Your task to perform on an android device: turn notification dots on Image 0: 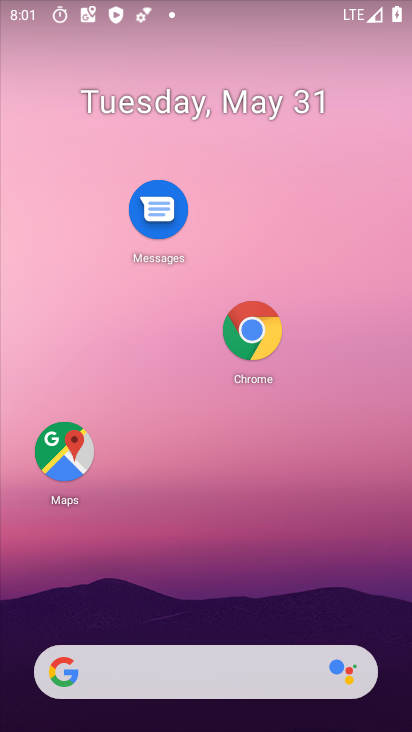
Step 0: drag from (216, 577) to (180, 10)
Your task to perform on an android device: turn notification dots on Image 1: 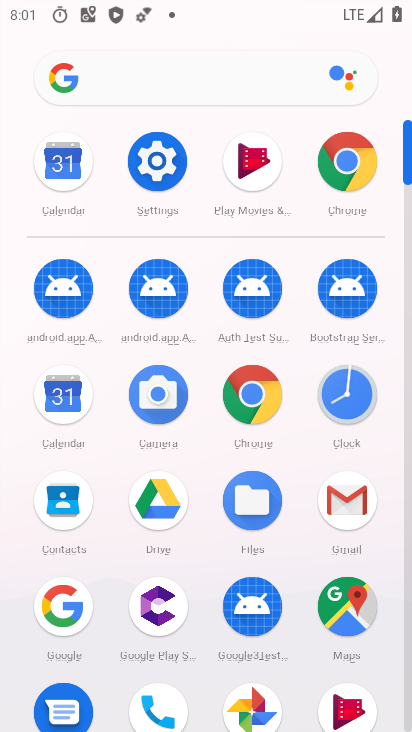
Step 1: click (157, 165)
Your task to perform on an android device: turn notification dots on Image 2: 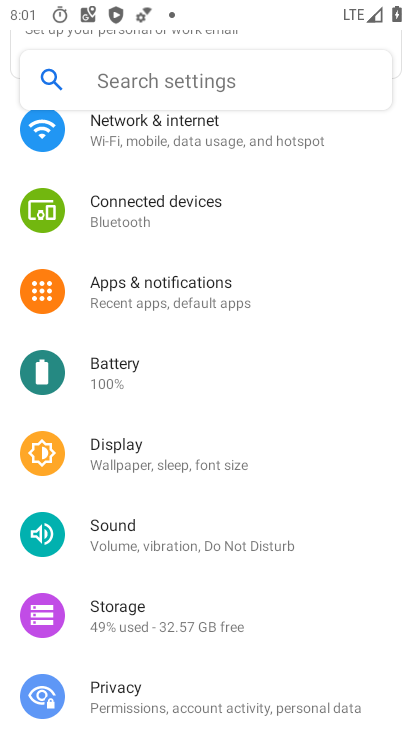
Step 2: click (186, 293)
Your task to perform on an android device: turn notification dots on Image 3: 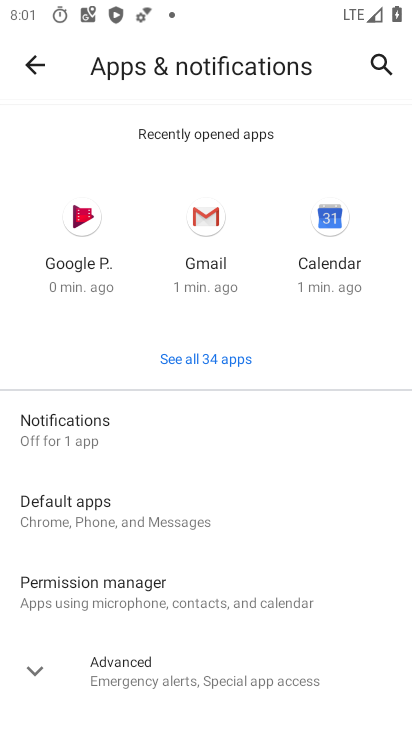
Step 3: click (73, 434)
Your task to perform on an android device: turn notification dots on Image 4: 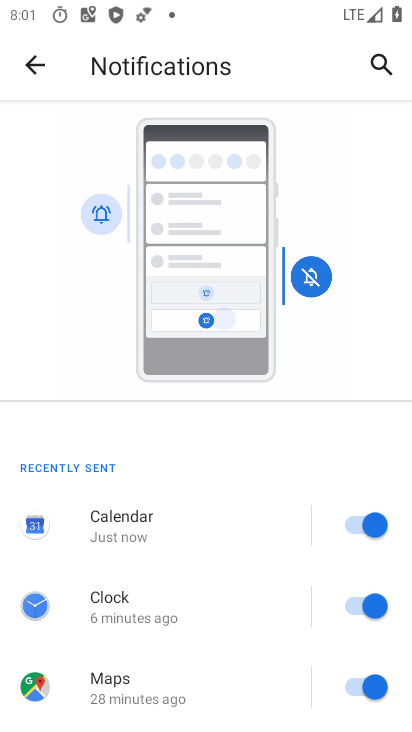
Step 4: drag from (173, 657) to (136, 270)
Your task to perform on an android device: turn notification dots on Image 5: 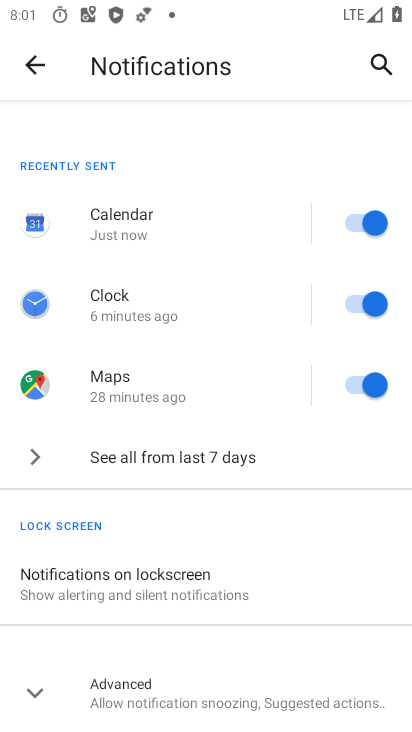
Step 5: click (151, 691)
Your task to perform on an android device: turn notification dots on Image 6: 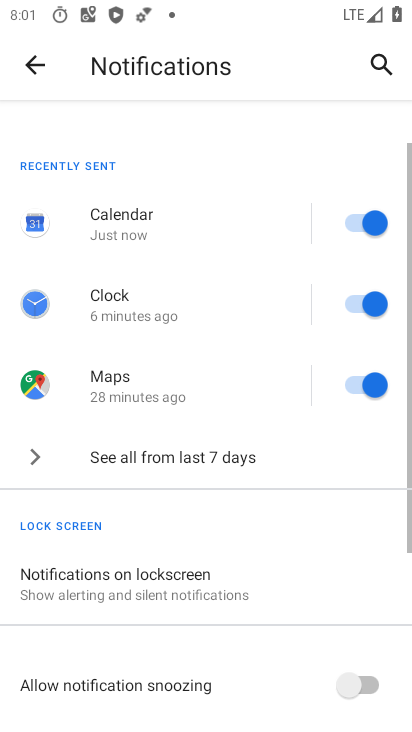
Step 6: drag from (148, 643) to (147, 258)
Your task to perform on an android device: turn notification dots on Image 7: 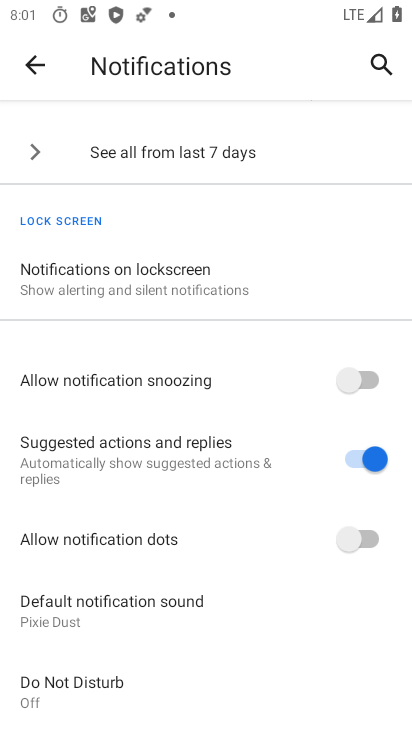
Step 7: click (371, 537)
Your task to perform on an android device: turn notification dots on Image 8: 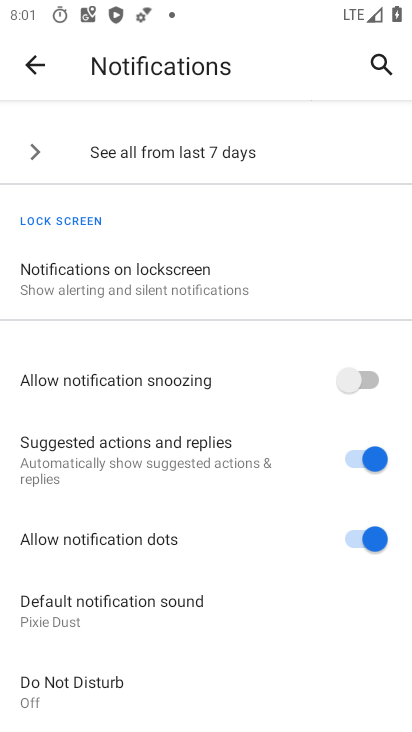
Step 8: task complete